Your task to perform on an android device: open app "Pluto TV - Live TV and Movies" Image 0: 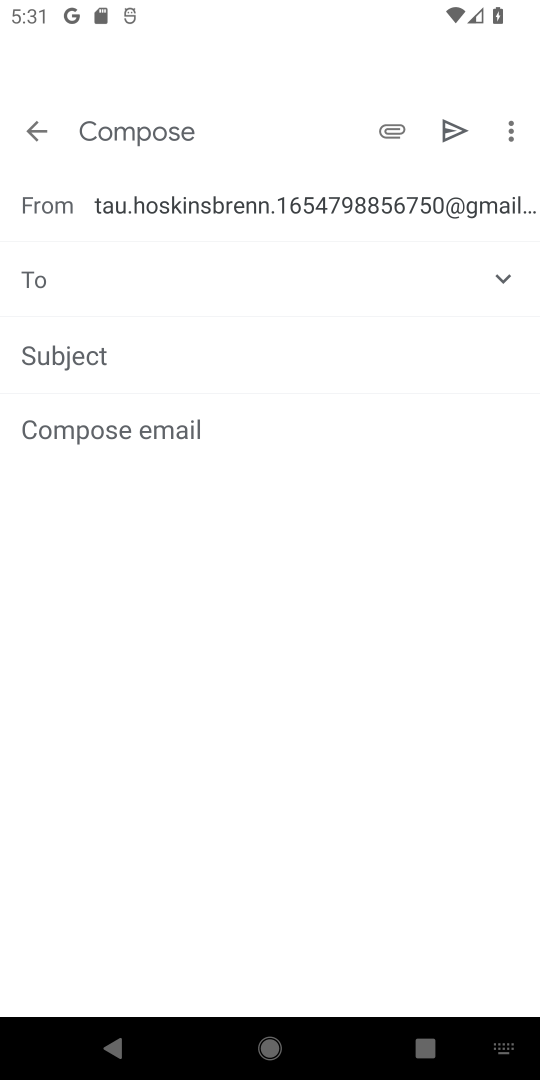
Step 0: press back button
Your task to perform on an android device: open app "Pluto TV - Live TV and Movies" Image 1: 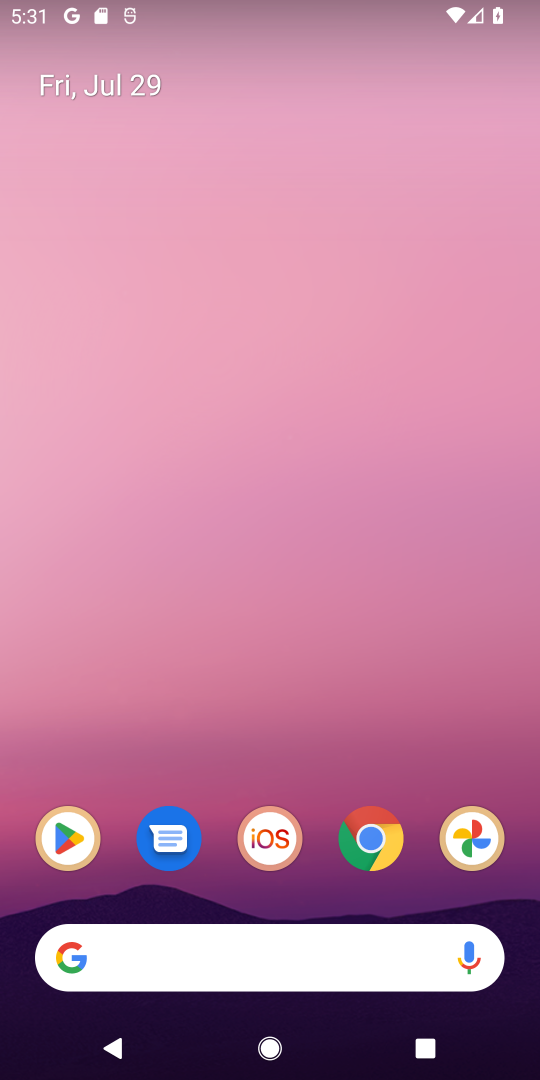
Step 1: press home button
Your task to perform on an android device: open app "Pluto TV - Live TV and Movies" Image 2: 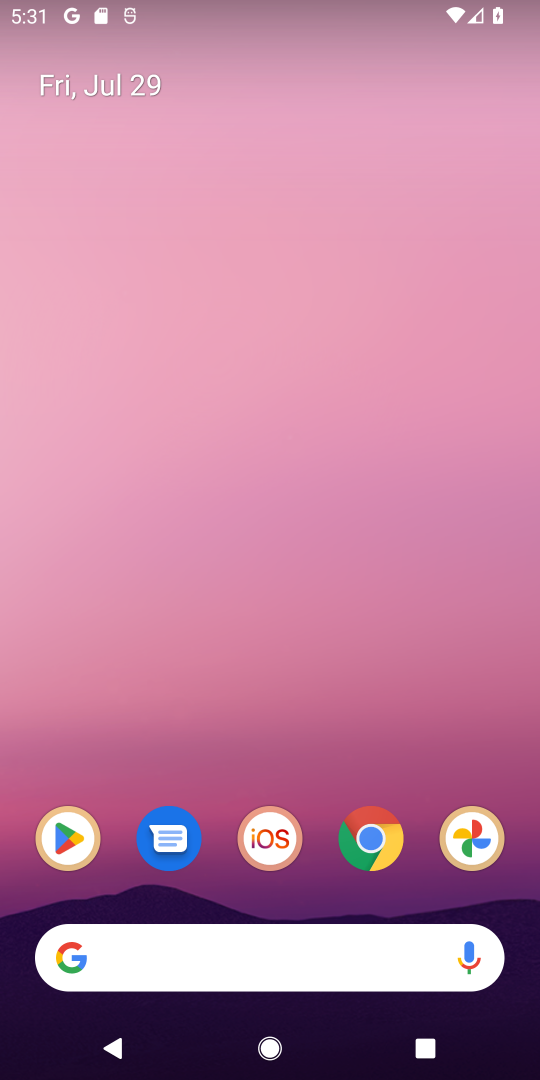
Step 2: click (66, 846)
Your task to perform on an android device: open app "Pluto TV - Live TV and Movies" Image 3: 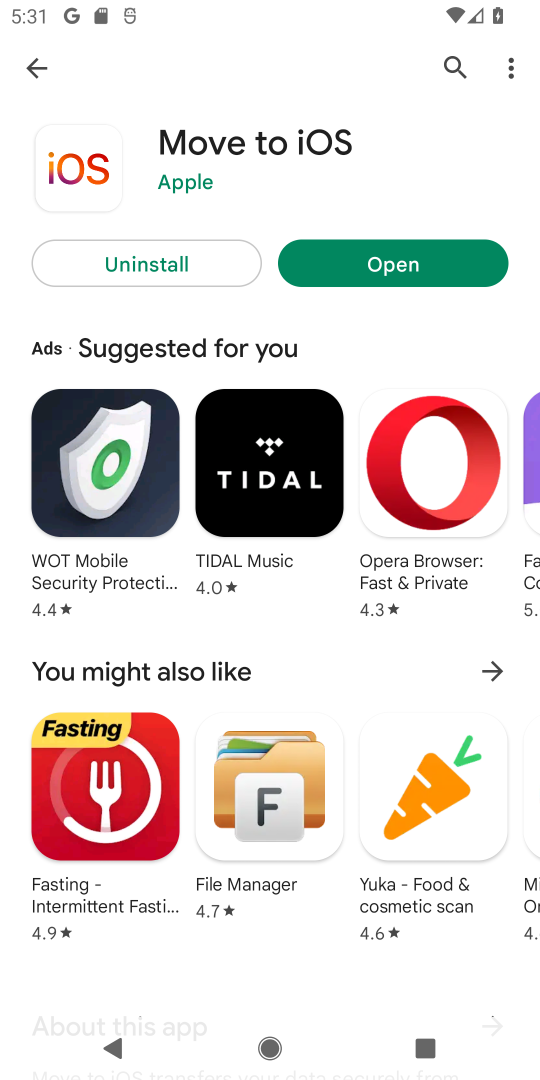
Step 3: click (449, 57)
Your task to perform on an android device: open app "Pluto TV - Live TV and Movies" Image 4: 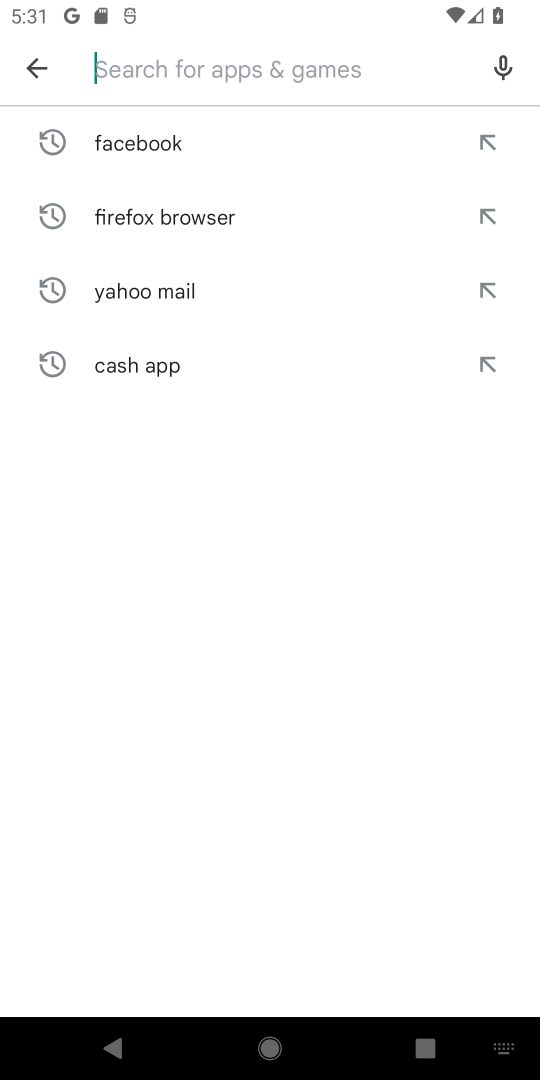
Step 4: click (250, 64)
Your task to perform on an android device: open app "Pluto TV - Live TV and Movies" Image 5: 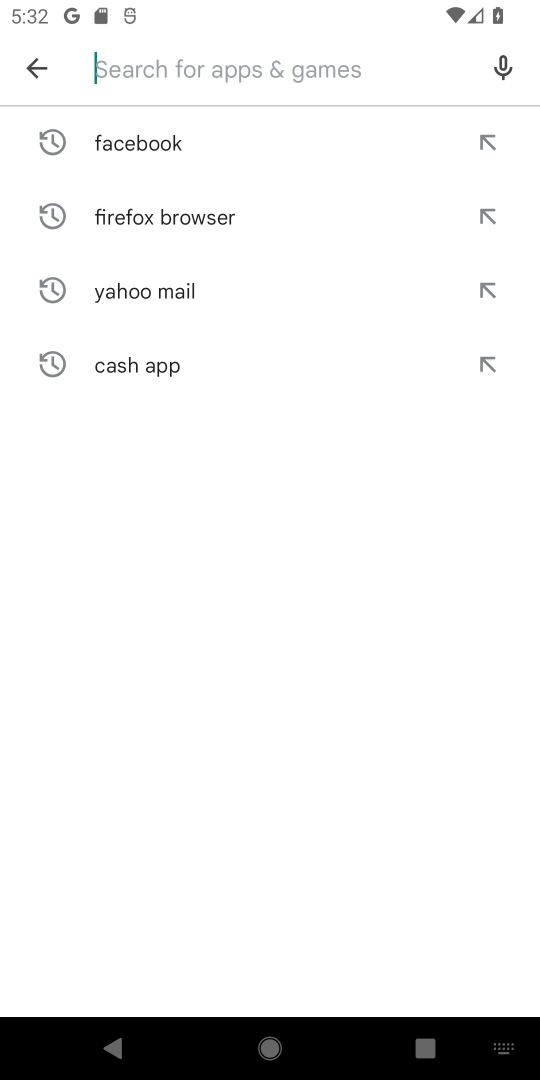
Step 5: type "pluto tv"
Your task to perform on an android device: open app "Pluto TV - Live TV and Movies" Image 6: 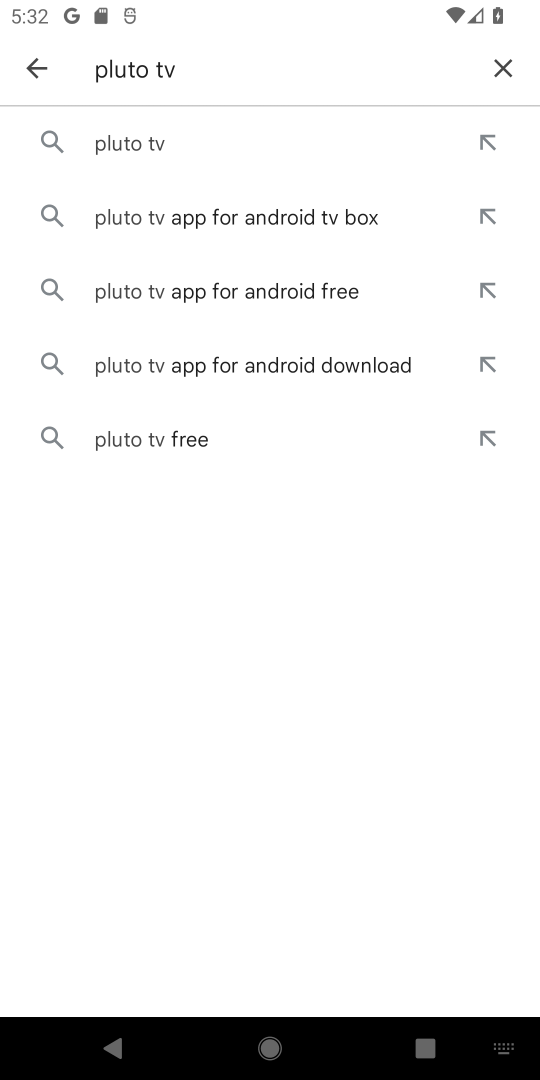
Step 6: click (288, 137)
Your task to perform on an android device: open app "Pluto TV - Live TV and Movies" Image 7: 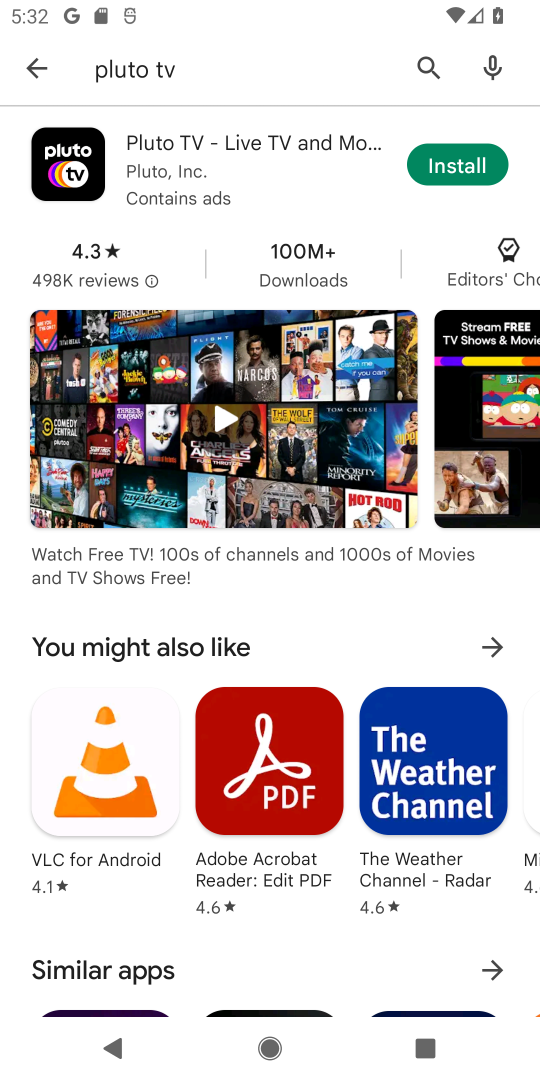
Step 7: click (451, 170)
Your task to perform on an android device: open app "Pluto TV - Live TV and Movies" Image 8: 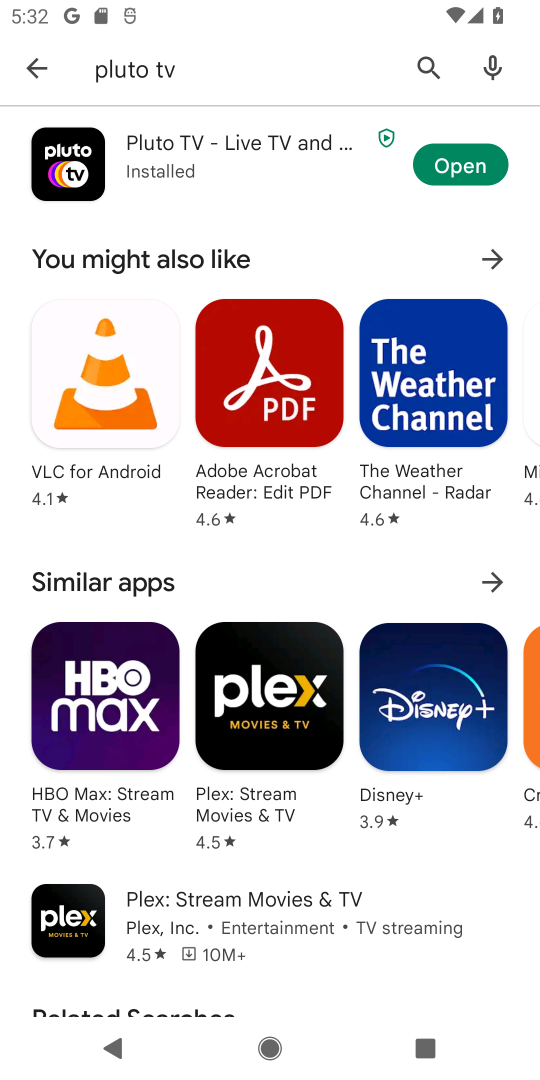
Step 8: click (452, 157)
Your task to perform on an android device: open app "Pluto TV - Live TV and Movies" Image 9: 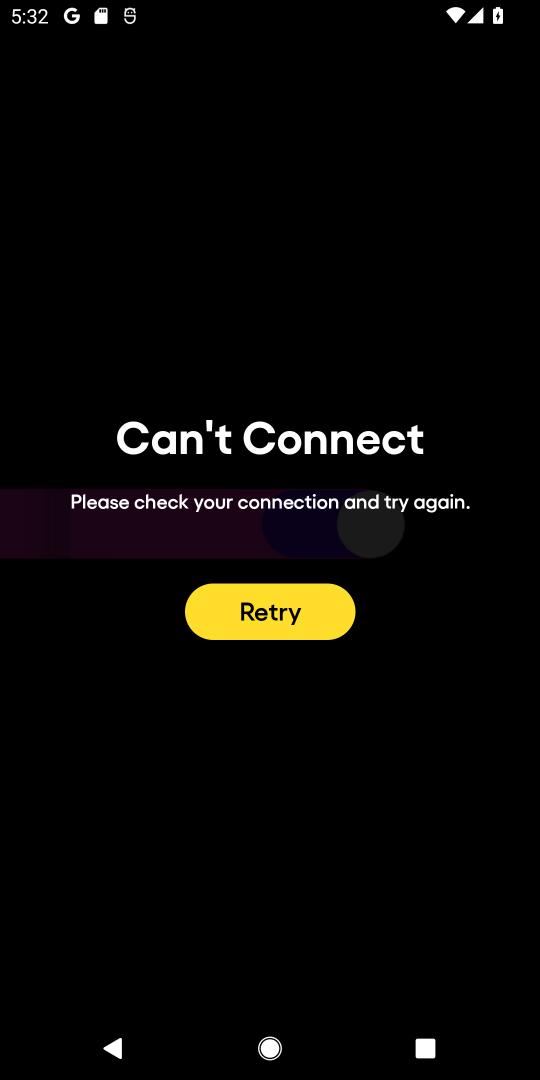
Step 9: task complete